Your task to perform on an android device: Open sound settings Image 0: 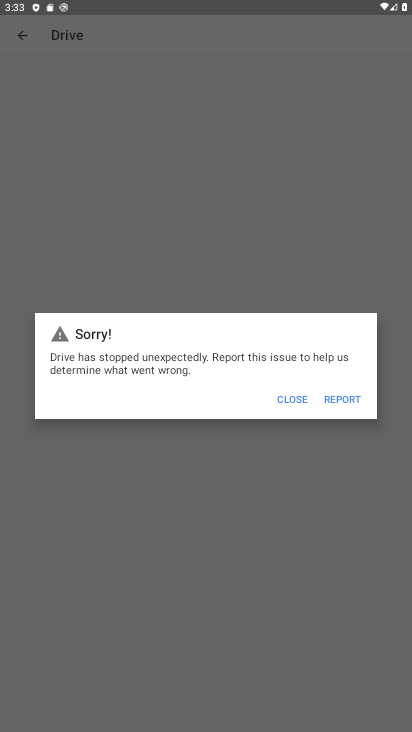
Step 0: press home button
Your task to perform on an android device: Open sound settings Image 1: 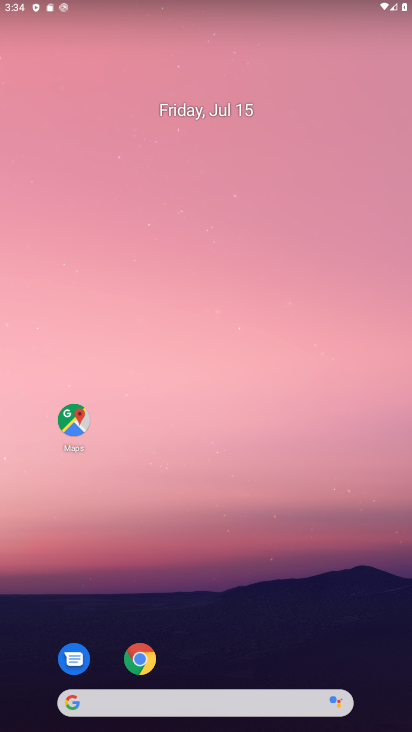
Step 1: click (171, 46)
Your task to perform on an android device: Open sound settings Image 2: 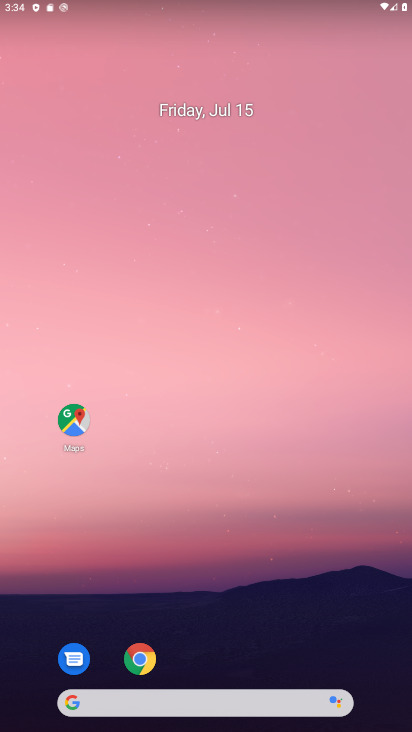
Step 2: drag from (174, 665) to (174, 246)
Your task to perform on an android device: Open sound settings Image 3: 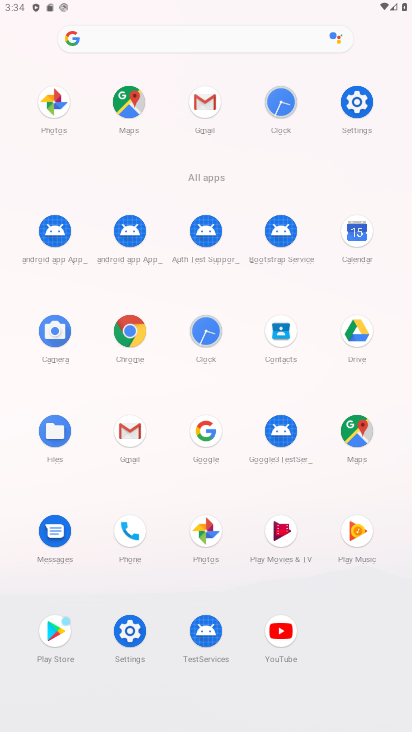
Step 3: drag from (191, 523) to (180, 58)
Your task to perform on an android device: Open sound settings Image 4: 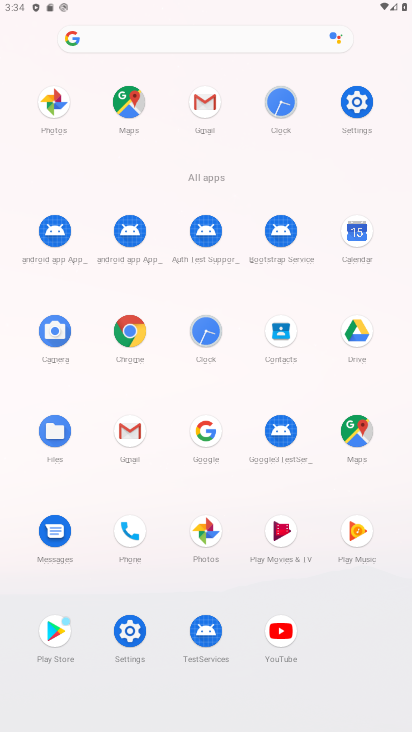
Step 4: drag from (181, 645) to (181, 4)
Your task to perform on an android device: Open sound settings Image 5: 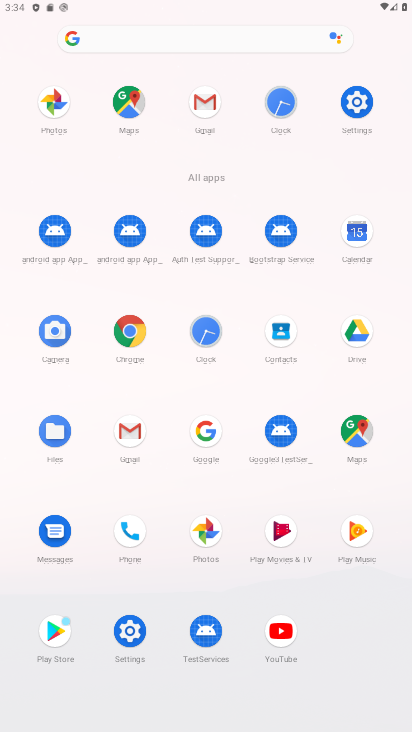
Step 5: click (356, 106)
Your task to perform on an android device: Open sound settings Image 6: 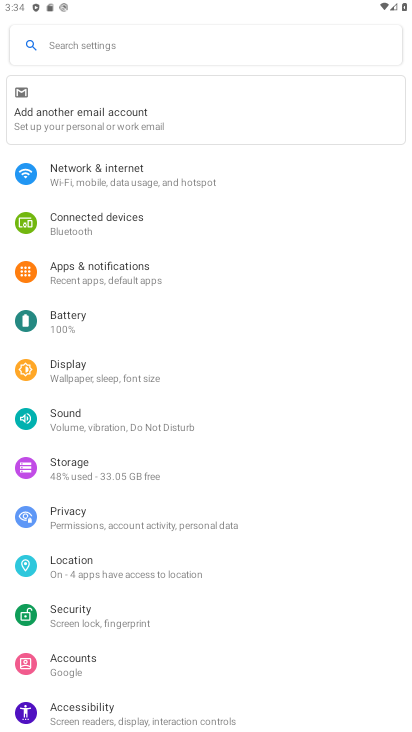
Step 6: click (75, 422)
Your task to perform on an android device: Open sound settings Image 7: 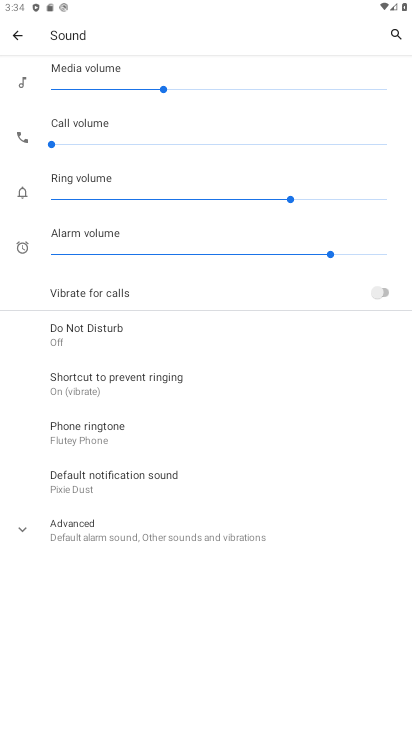
Step 7: task complete